Your task to perform on an android device: turn off wifi Image 0: 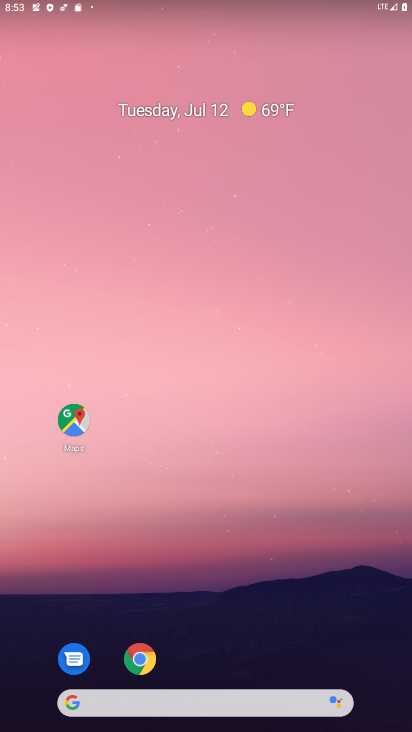
Step 0: drag from (198, 707) to (201, 186)
Your task to perform on an android device: turn off wifi Image 1: 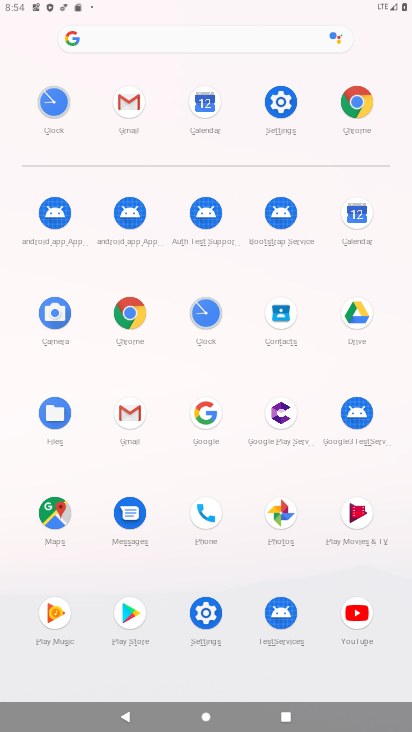
Step 1: click (284, 101)
Your task to perform on an android device: turn off wifi Image 2: 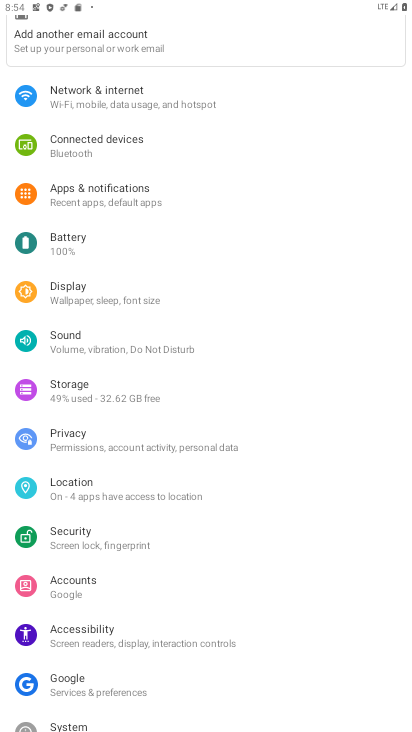
Step 2: click (96, 94)
Your task to perform on an android device: turn off wifi Image 3: 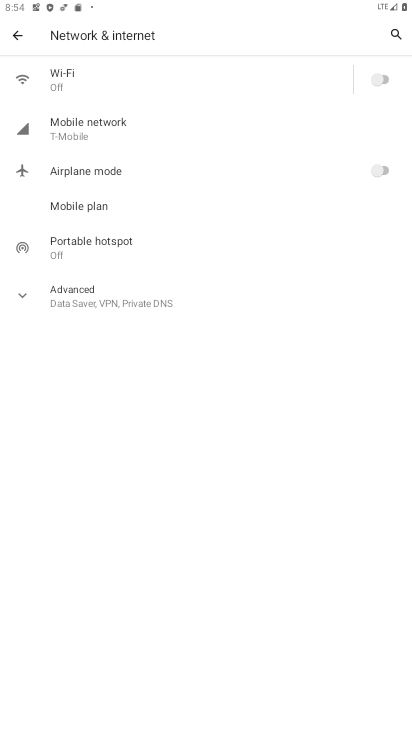
Step 3: task complete